Your task to perform on an android device: open a bookmark in the chrome app Image 0: 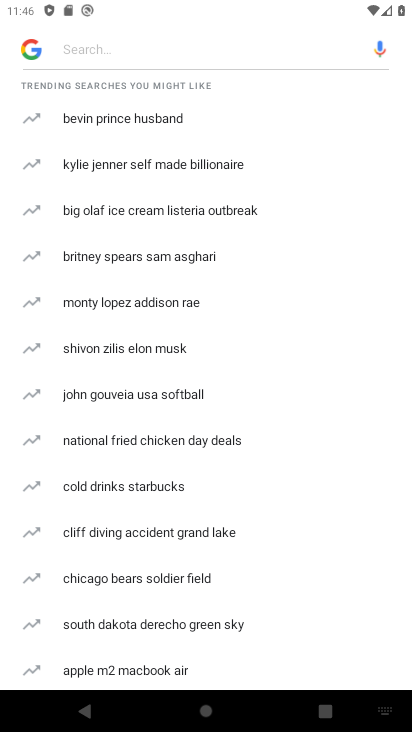
Step 0: press home button
Your task to perform on an android device: open a bookmark in the chrome app Image 1: 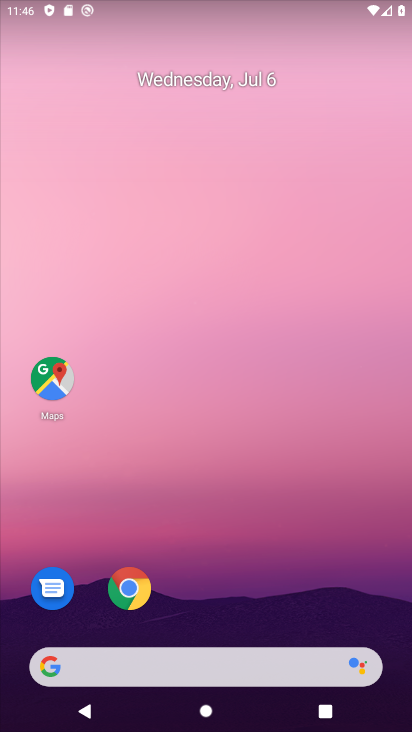
Step 1: click (129, 586)
Your task to perform on an android device: open a bookmark in the chrome app Image 2: 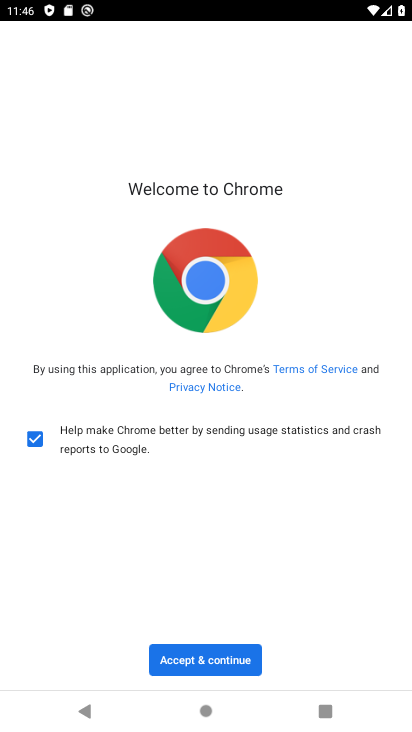
Step 2: click (227, 660)
Your task to perform on an android device: open a bookmark in the chrome app Image 3: 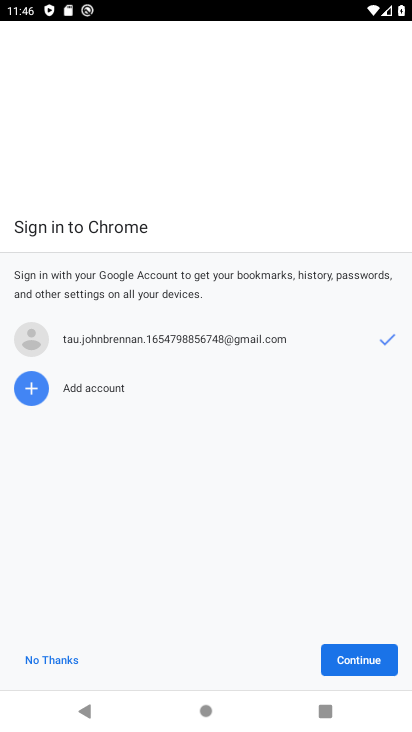
Step 3: click (356, 657)
Your task to perform on an android device: open a bookmark in the chrome app Image 4: 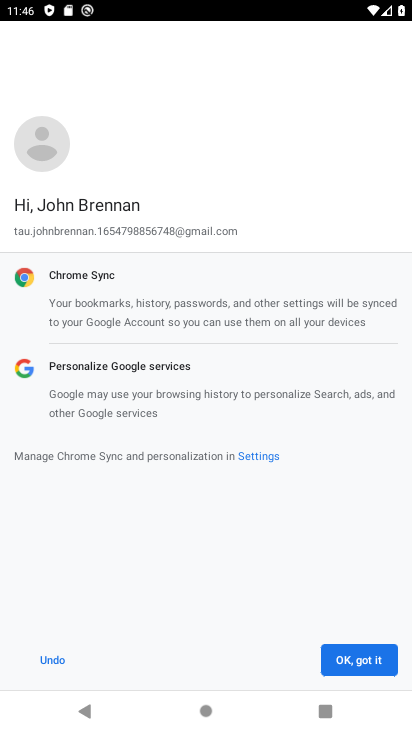
Step 4: click (356, 657)
Your task to perform on an android device: open a bookmark in the chrome app Image 5: 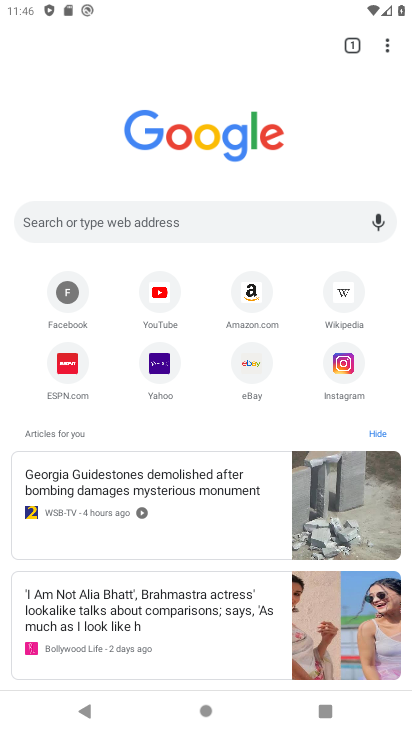
Step 5: click (388, 53)
Your task to perform on an android device: open a bookmark in the chrome app Image 6: 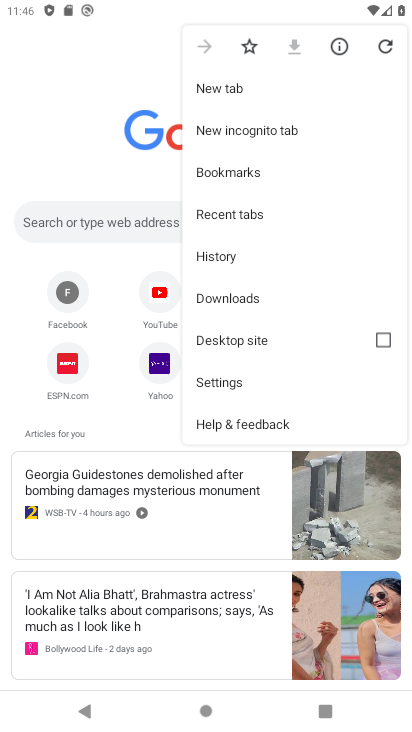
Step 6: click (231, 172)
Your task to perform on an android device: open a bookmark in the chrome app Image 7: 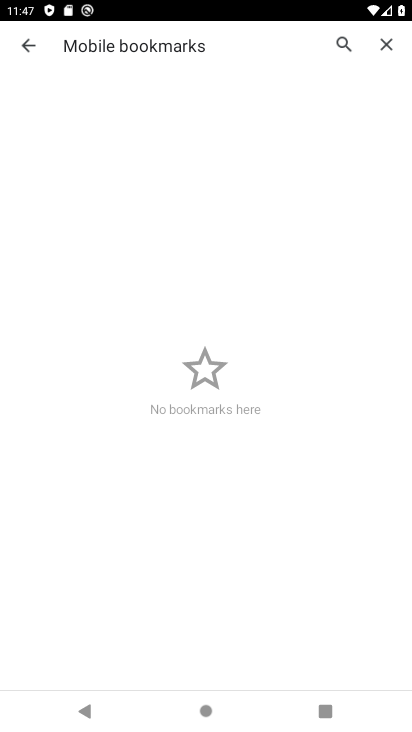
Step 7: task complete